Your task to perform on an android device: turn vacation reply on in the gmail app Image 0: 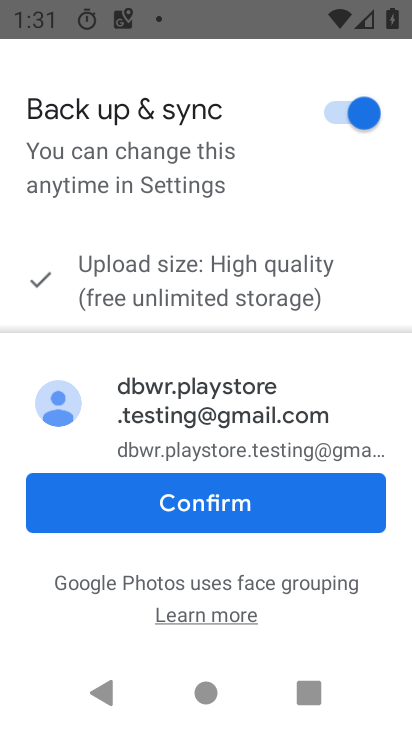
Step 0: press home button
Your task to perform on an android device: turn vacation reply on in the gmail app Image 1: 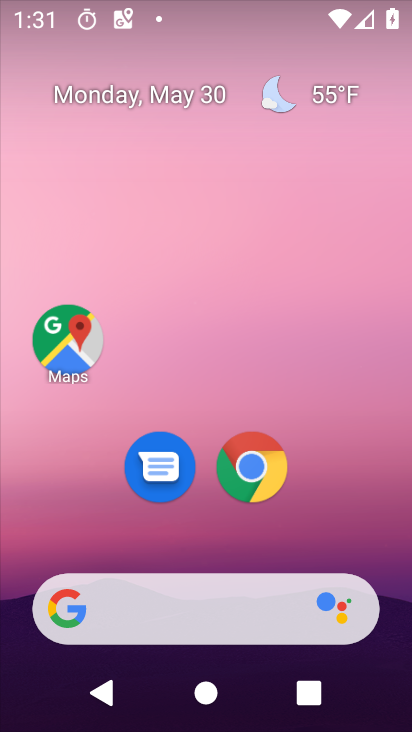
Step 1: drag from (380, 650) to (310, 137)
Your task to perform on an android device: turn vacation reply on in the gmail app Image 2: 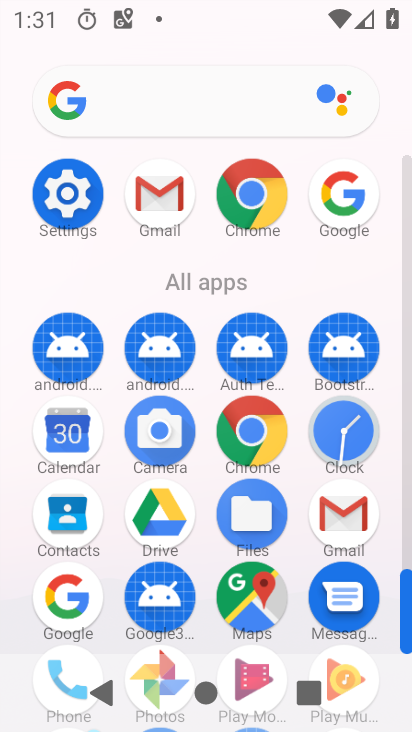
Step 2: click (349, 525)
Your task to perform on an android device: turn vacation reply on in the gmail app Image 3: 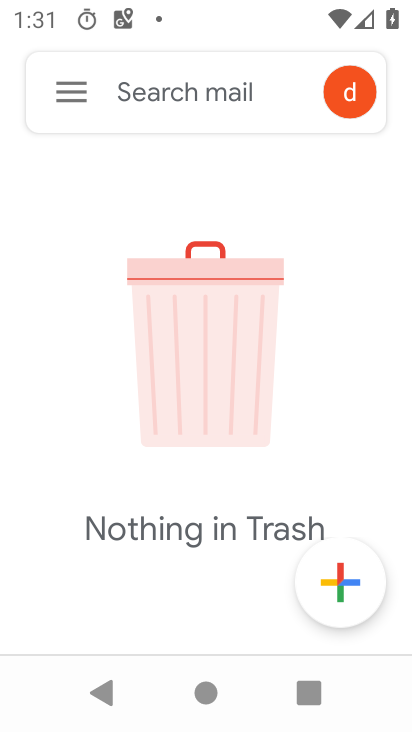
Step 3: click (63, 89)
Your task to perform on an android device: turn vacation reply on in the gmail app Image 4: 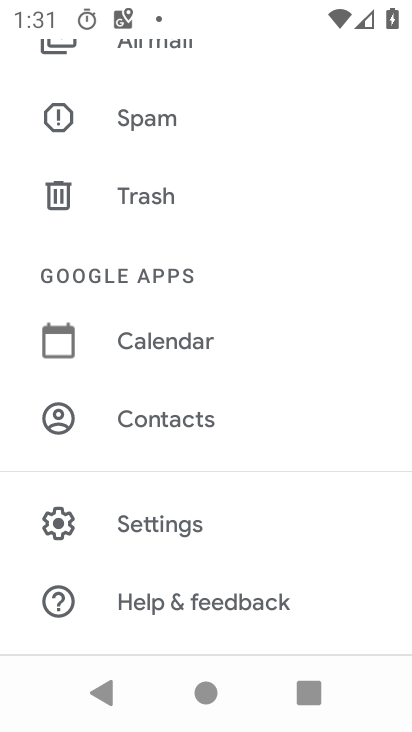
Step 4: click (152, 524)
Your task to perform on an android device: turn vacation reply on in the gmail app Image 5: 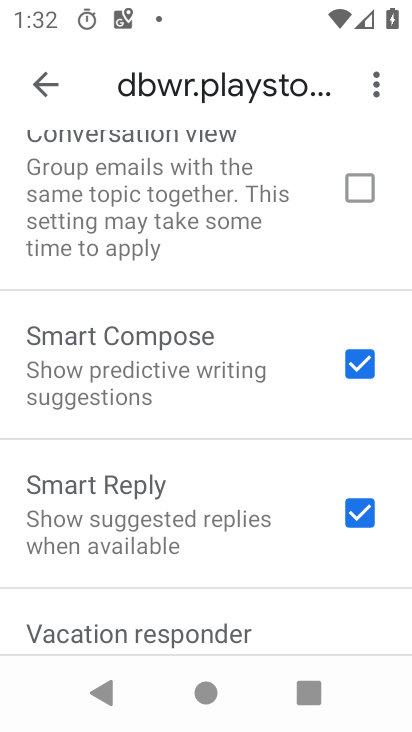
Step 5: drag from (254, 603) to (269, 336)
Your task to perform on an android device: turn vacation reply on in the gmail app Image 6: 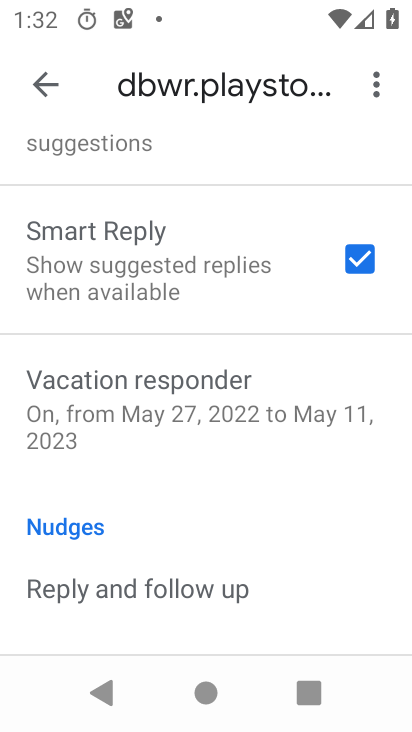
Step 6: click (94, 413)
Your task to perform on an android device: turn vacation reply on in the gmail app Image 7: 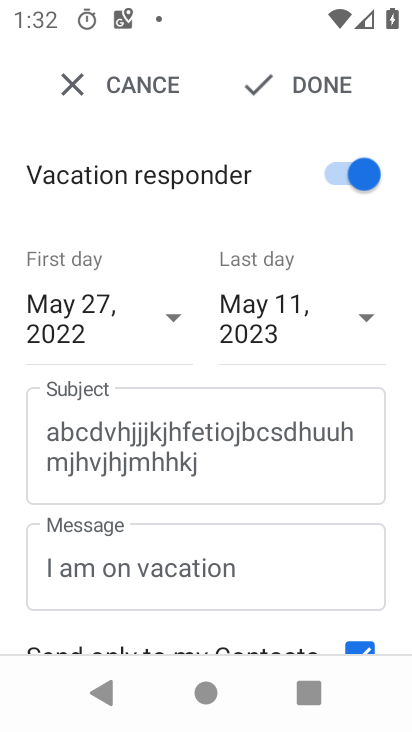
Step 7: task complete